Your task to perform on an android device: set the timer Image 0: 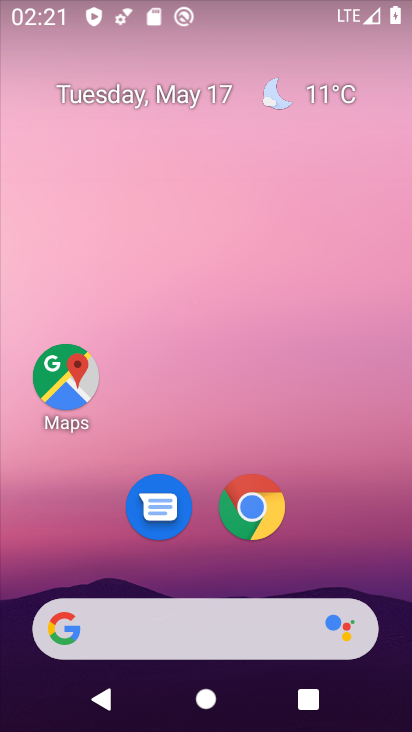
Step 0: drag from (212, 556) to (175, 4)
Your task to perform on an android device: set the timer Image 1: 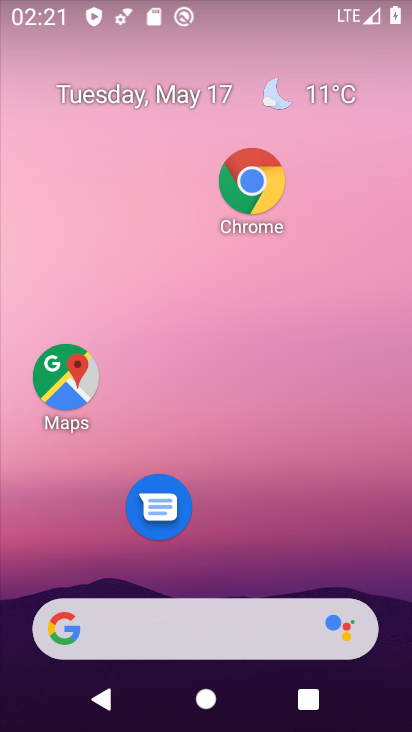
Step 1: drag from (209, 551) to (296, 13)
Your task to perform on an android device: set the timer Image 2: 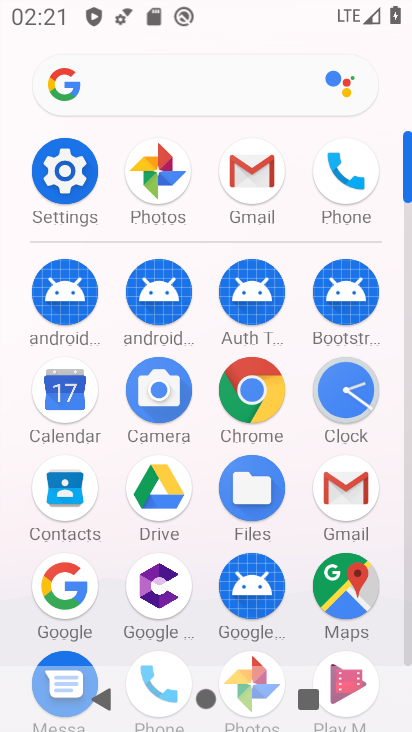
Step 2: click (337, 387)
Your task to perform on an android device: set the timer Image 3: 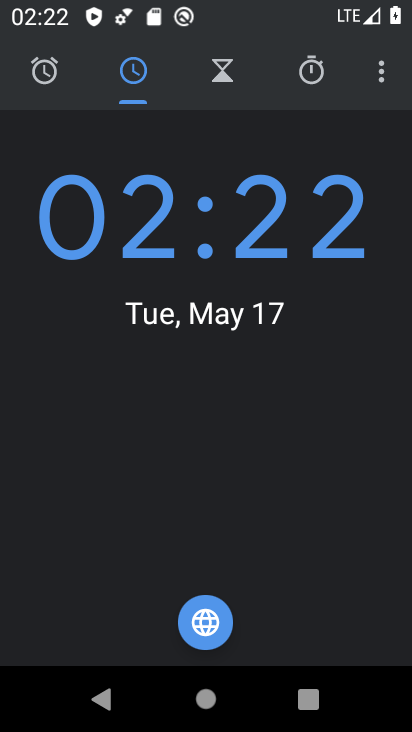
Step 3: click (237, 89)
Your task to perform on an android device: set the timer Image 4: 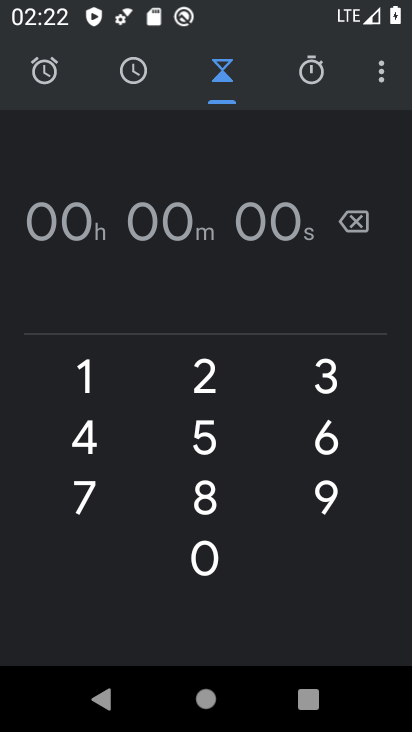
Step 4: click (313, 440)
Your task to perform on an android device: set the timer Image 5: 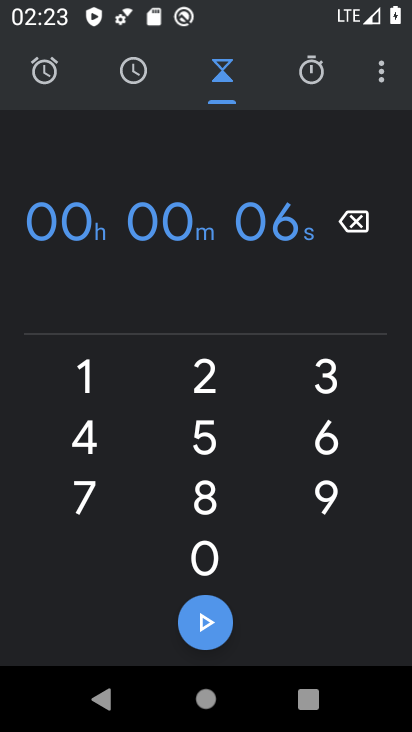
Step 5: click (199, 619)
Your task to perform on an android device: set the timer Image 6: 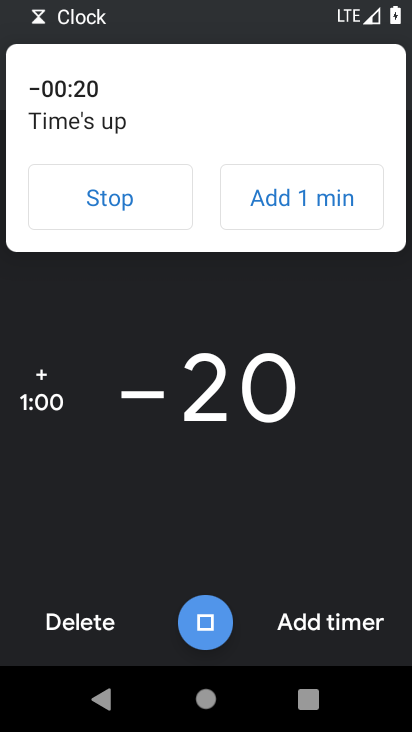
Step 6: click (129, 185)
Your task to perform on an android device: set the timer Image 7: 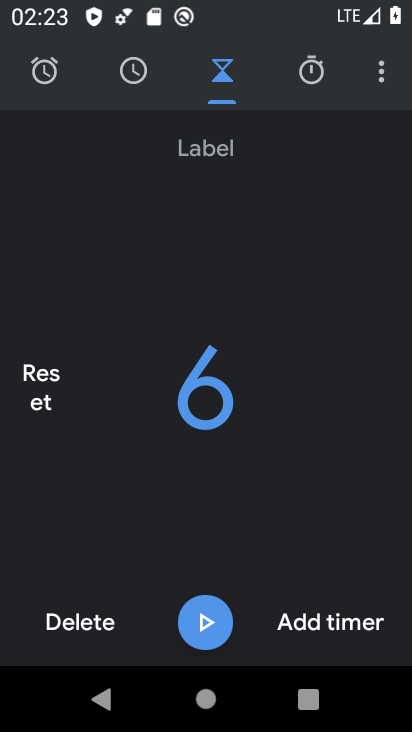
Step 7: task complete